Your task to perform on an android device: open app "Expedia: Hotels, Flights & Car" Image 0: 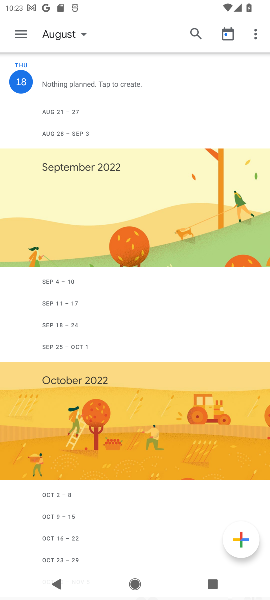
Step 0: press home button
Your task to perform on an android device: open app "Expedia: Hotels, Flights & Car" Image 1: 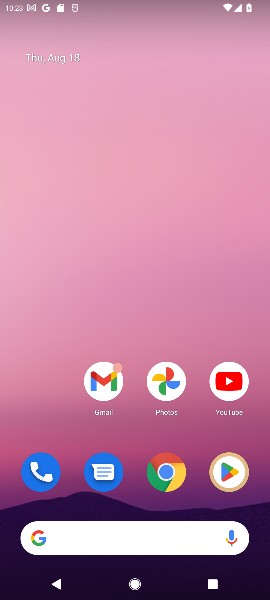
Step 1: drag from (201, 448) to (157, 89)
Your task to perform on an android device: open app "Expedia: Hotels, Flights & Car" Image 2: 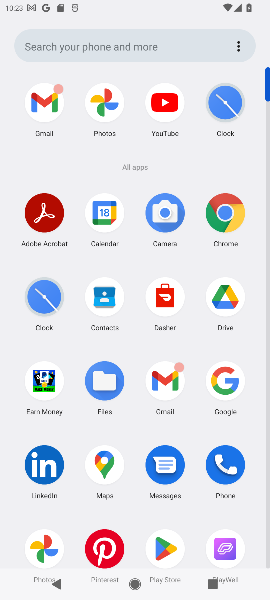
Step 2: click (168, 539)
Your task to perform on an android device: open app "Expedia: Hotels, Flights & Car" Image 3: 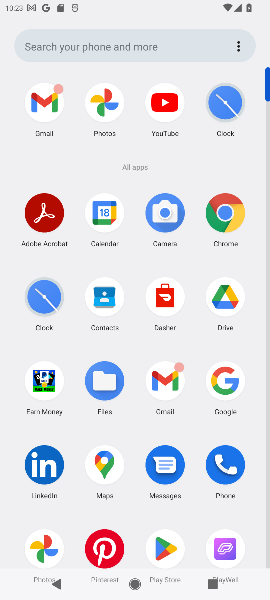
Step 3: click (168, 539)
Your task to perform on an android device: open app "Expedia: Hotels, Flights & Car" Image 4: 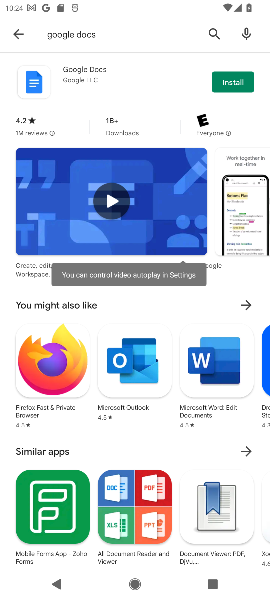
Step 4: click (211, 38)
Your task to perform on an android device: open app "Expedia: Hotels, Flights & Car" Image 5: 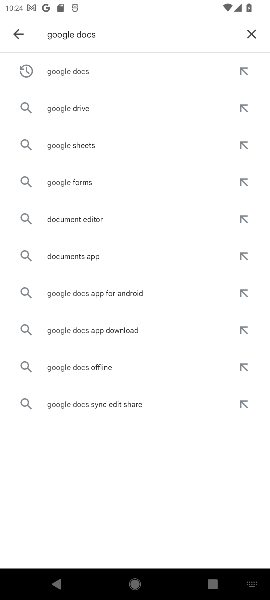
Step 5: click (251, 37)
Your task to perform on an android device: open app "Expedia: Hotels, Flights & Car" Image 6: 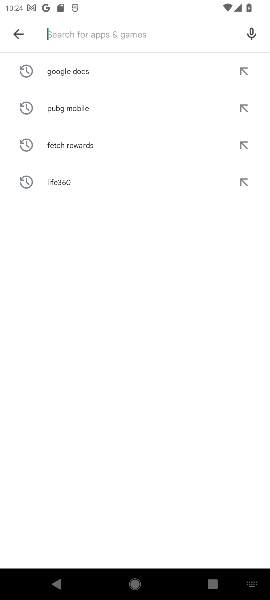
Step 6: type "expedia: hotels, flights & car"
Your task to perform on an android device: open app "Expedia: Hotels, Flights & Car" Image 7: 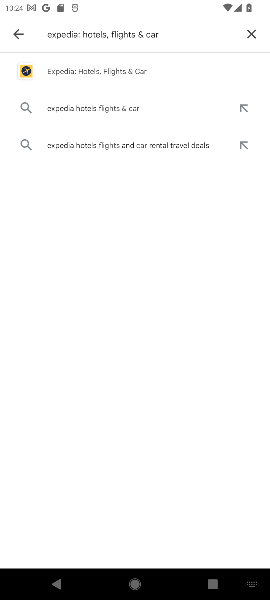
Step 7: click (150, 71)
Your task to perform on an android device: open app "Expedia: Hotels, Flights & Car" Image 8: 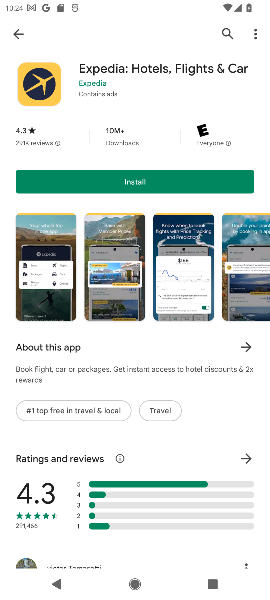
Step 8: task complete